Your task to perform on an android device: search for starred emails in the gmail app Image 0: 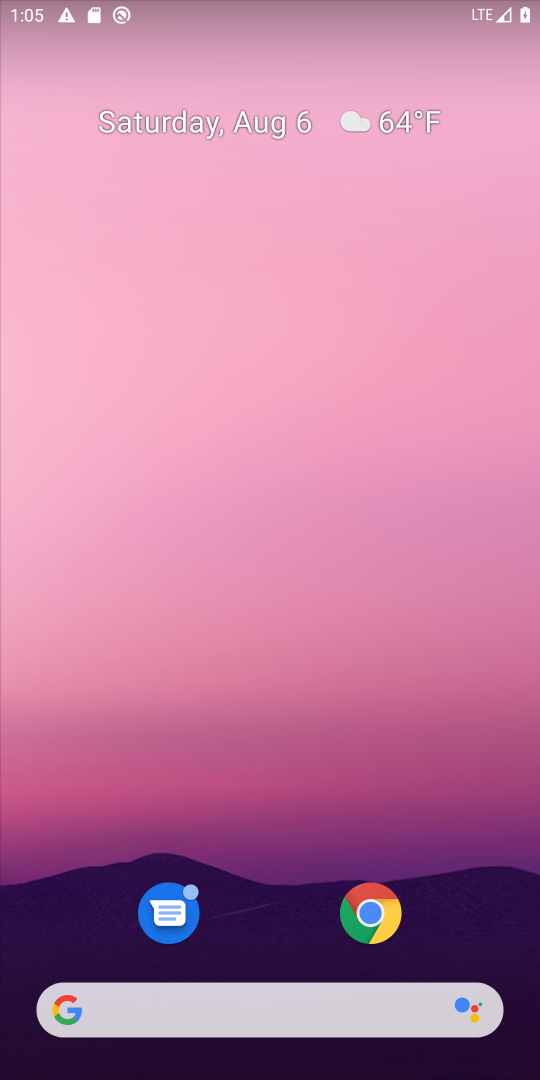
Step 0: press home button
Your task to perform on an android device: search for starred emails in the gmail app Image 1: 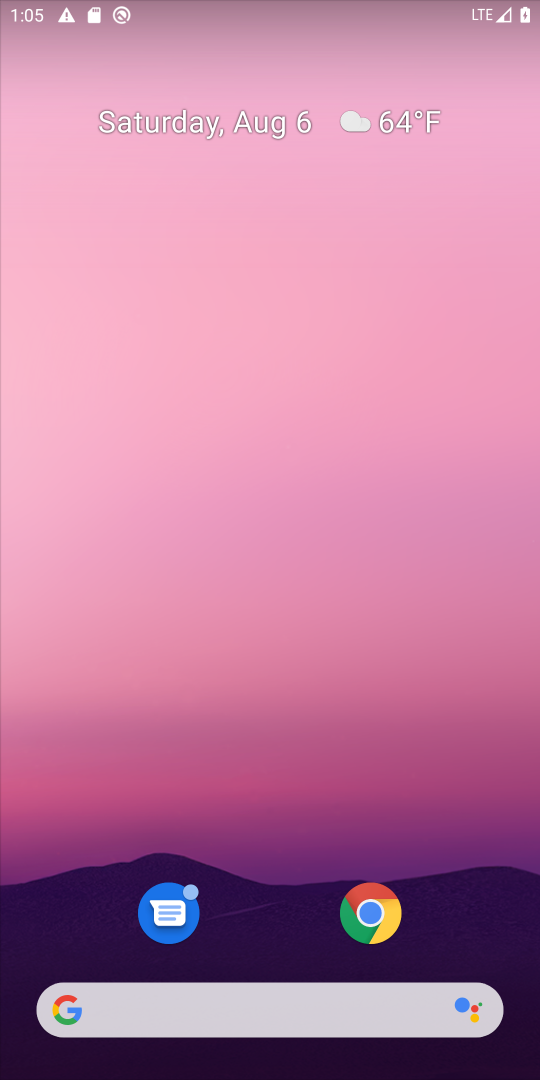
Step 1: drag from (268, 920) to (342, 288)
Your task to perform on an android device: search for starred emails in the gmail app Image 2: 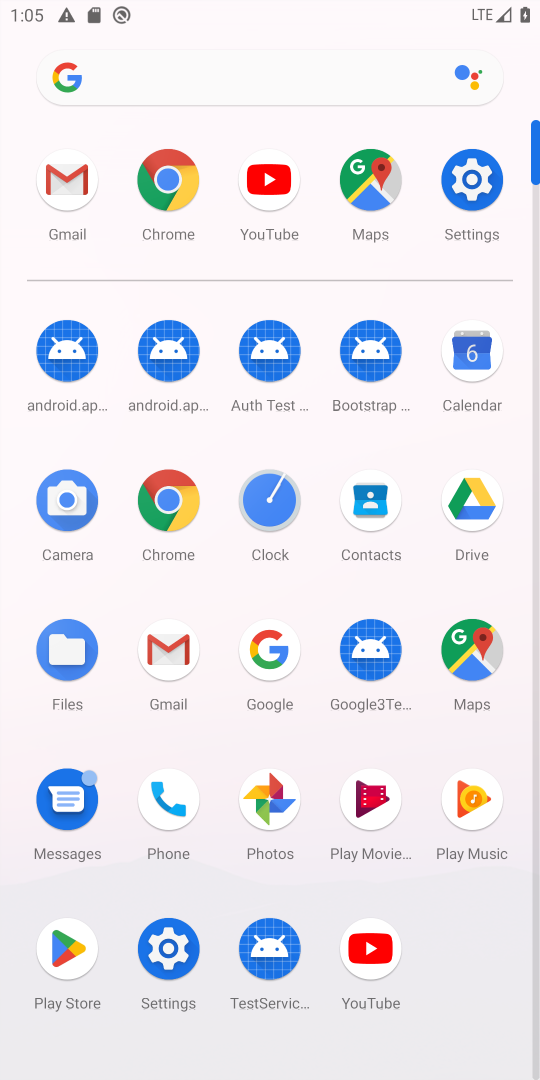
Step 2: click (162, 648)
Your task to perform on an android device: search for starred emails in the gmail app Image 3: 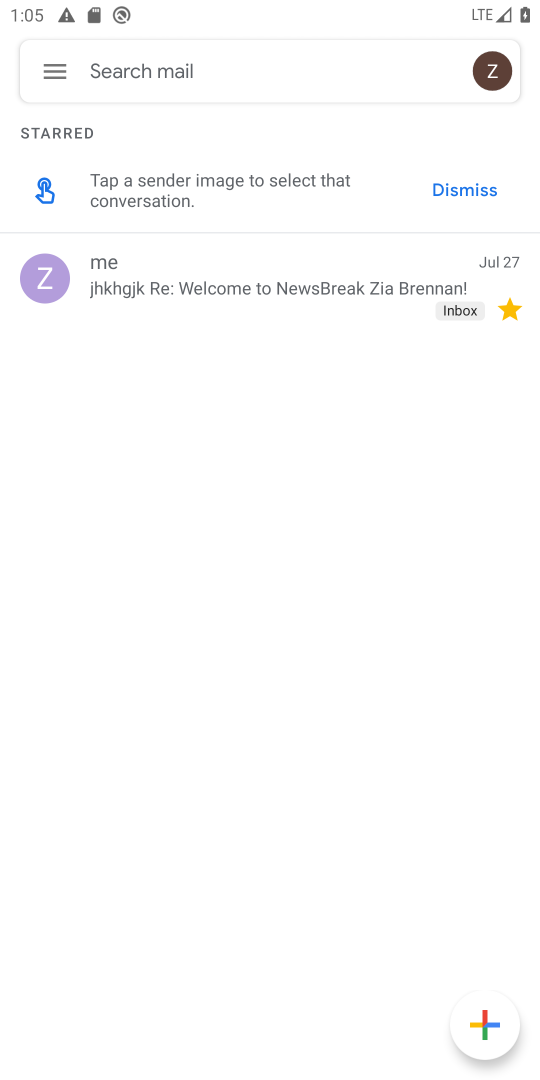
Step 3: click (53, 82)
Your task to perform on an android device: search for starred emails in the gmail app Image 4: 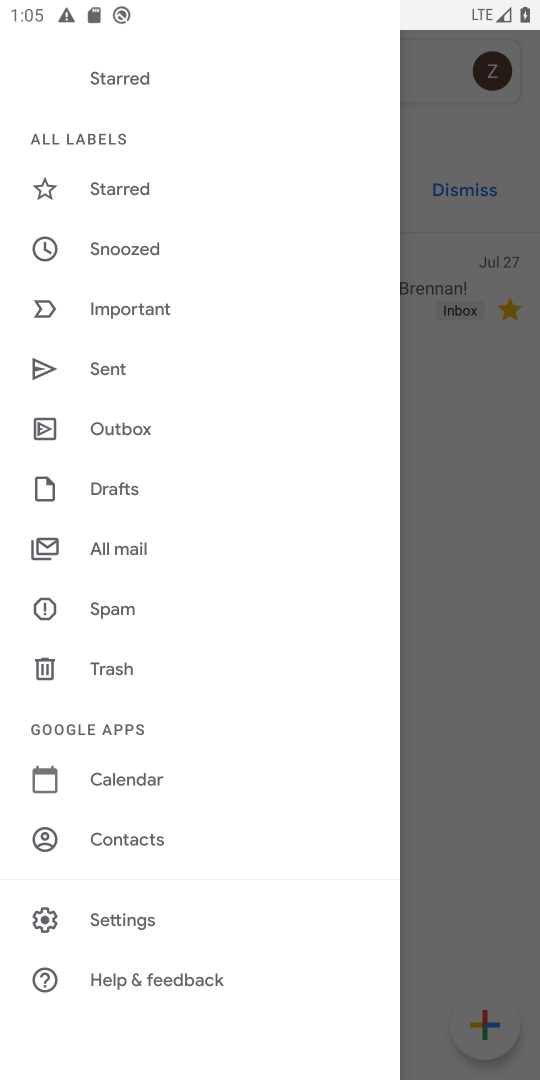
Step 4: drag from (319, 390) to (303, 643)
Your task to perform on an android device: search for starred emails in the gmail app Image 5: 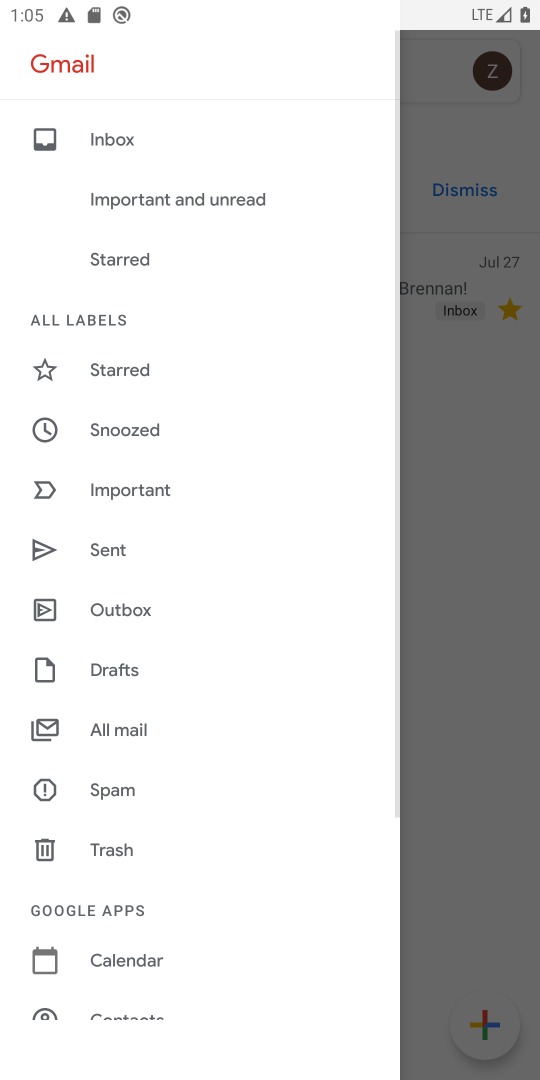
Step 5: drag from (328, 305) to (330, 598)
Your task to perform on an android device: search for starred emails in the gmail app Image 6: 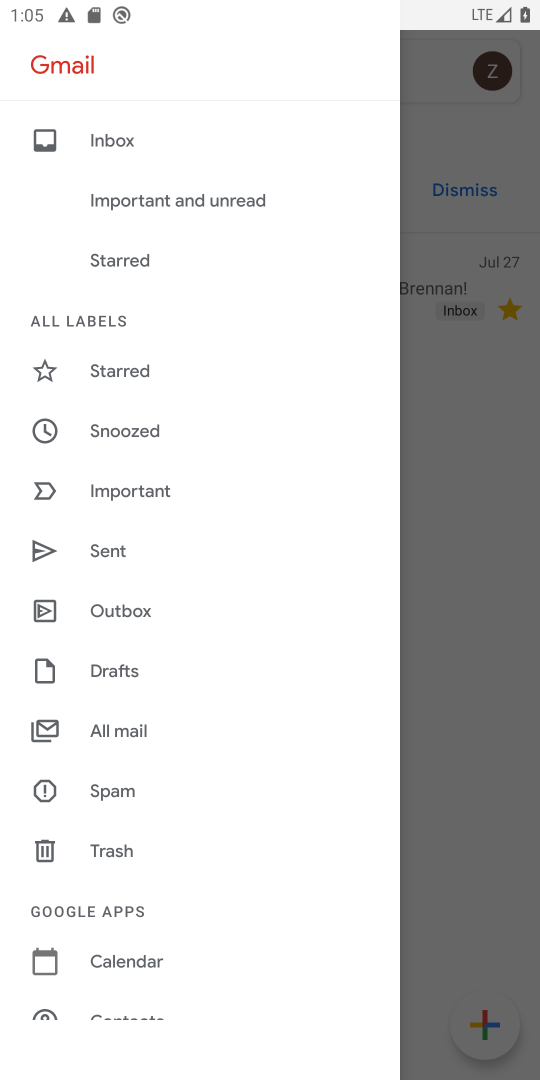
Step 6: click (150, 354)
Your task to perform on an android device: search for starred emails in the gmail app Image 7: 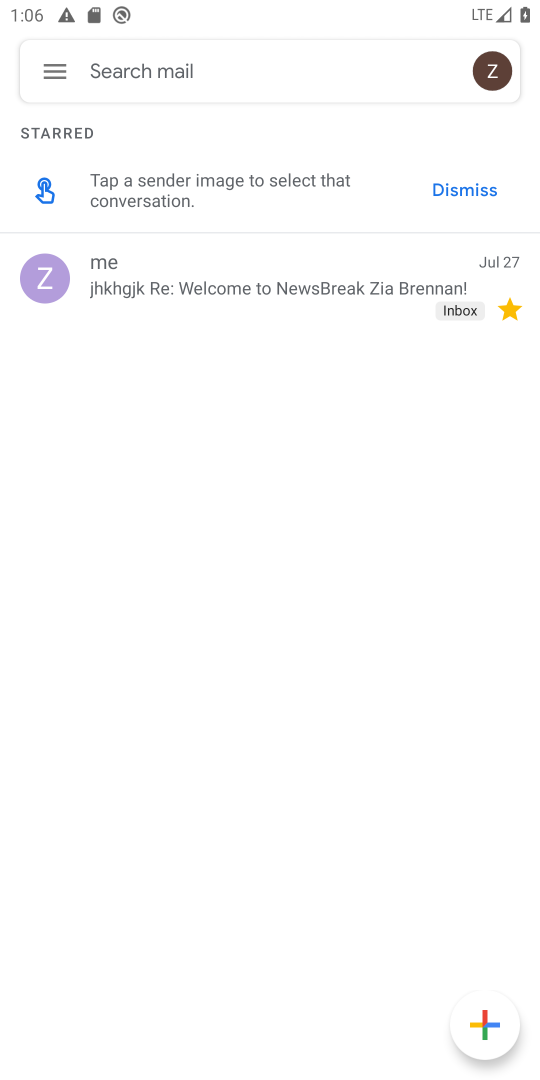
Step 7: task complete